Your task to perform on an android device: visit the assistant section in the google photos Image 0: 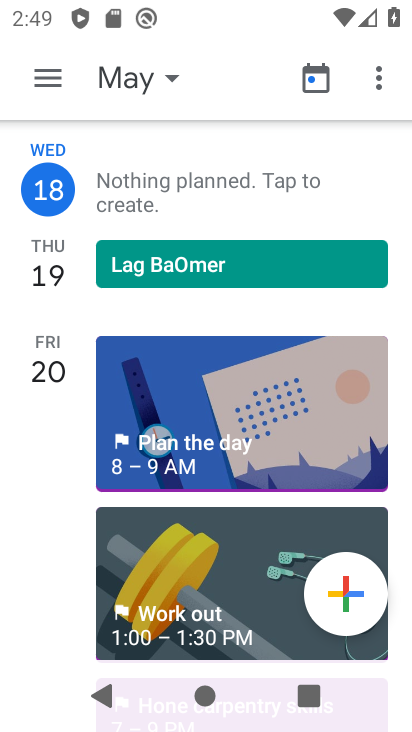
Step 0: press home button
Your task to perform on an android device: visit the assistant section in the google photos Image 1: 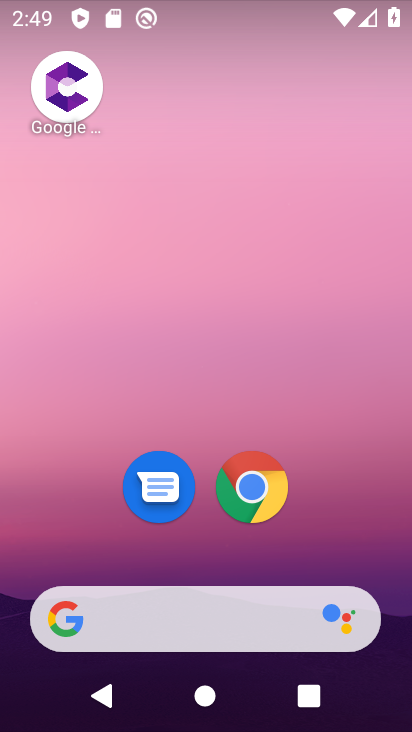
Step 1: drag from (351, 528) to (356, 162)
Your task to perform on an android device: visit the assistant section in the google photos Image 2: 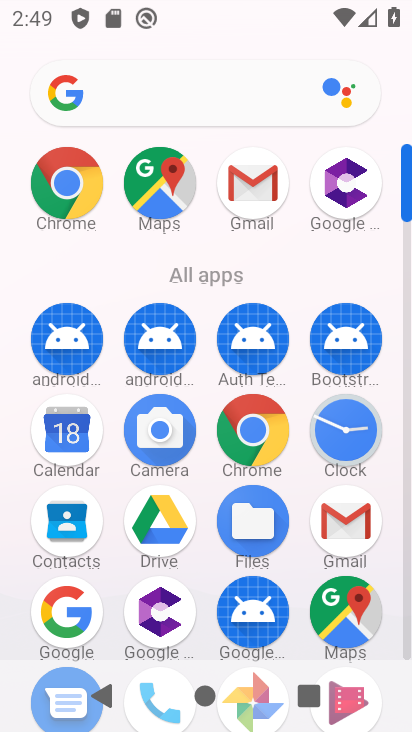
Step 2: drag from (392, 570) to (400, 233)
Your task to perform on an android device: visit the assistant section in the google photos Image 3: 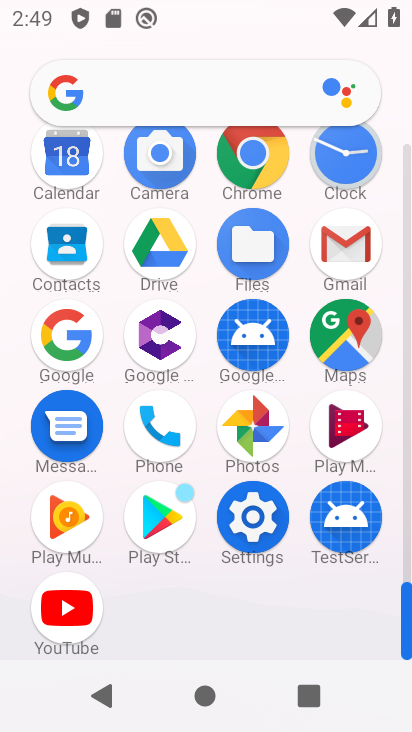
Step 3: click (252, 445)
Your task to perform on an android device: visit the assistant section in the google photos Image 4: 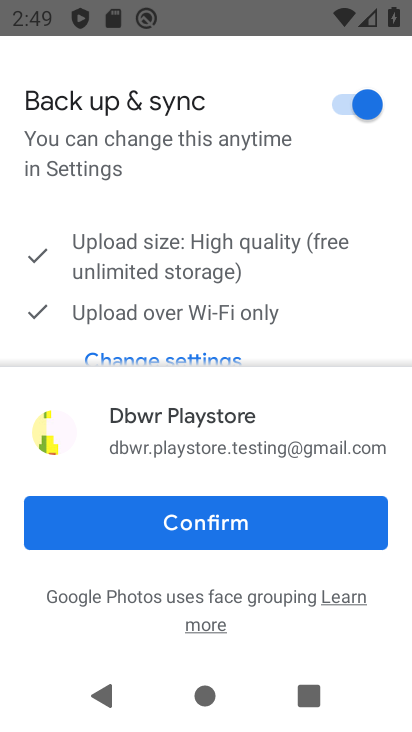
Step 4: click (283, 541)
Your task to perform on an android device: visit the assistant section in the google photos Image 5: 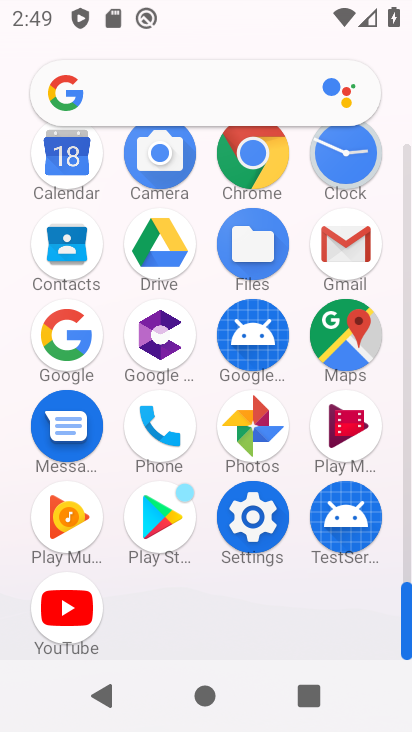
Step 5: click (269, 435)
Your task to perform on an android device: visit the assistant section in the google photos Image 6: 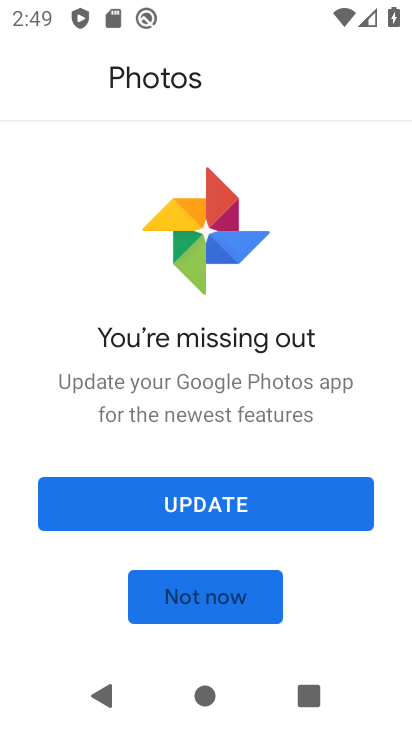
Step 6: click (290, 499)
Your task to perform on an android device: visit the assistant section in the google photos Image 7: 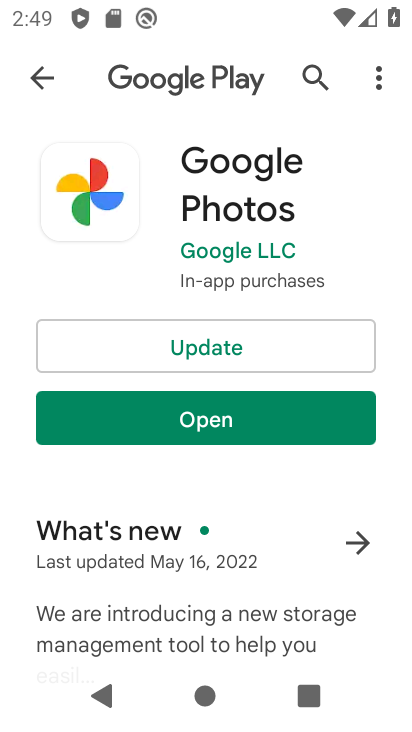
Step 7: click (273, 352)
Your task to perform on an android device: visit the assistant section in the google photos Image 8: 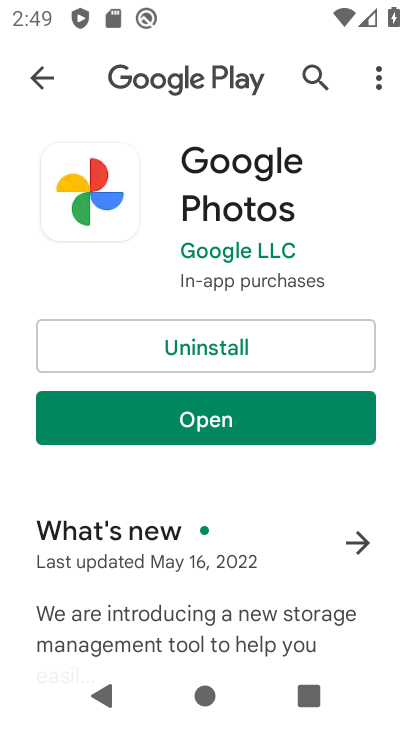
Step 8: click (261, 424)
Your task to perform on an android device: visit the assistant section in the google photos Image 9: 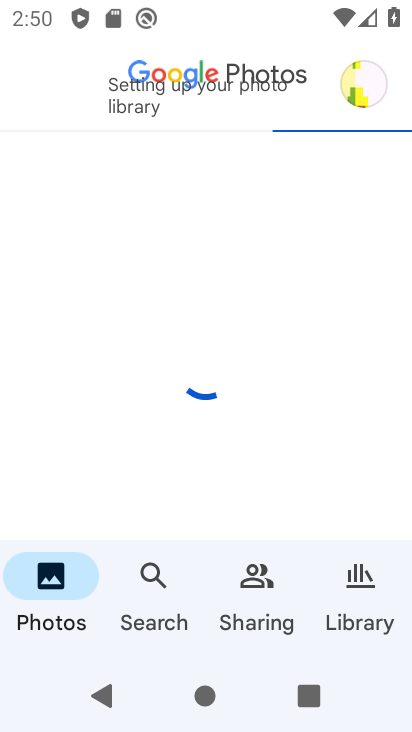
Step 9: click (363, 94)
Your task to perform on an android device: visit the assistant section in the google photos Image 10: 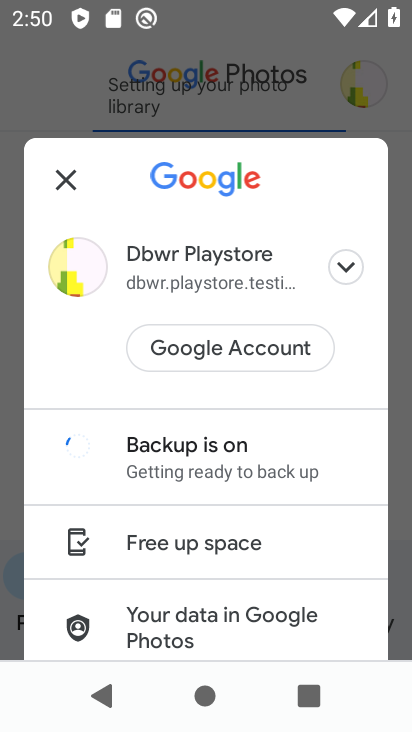
Step 10: task complete